Your task to perform on an android device: Go to sound settings Image 0: 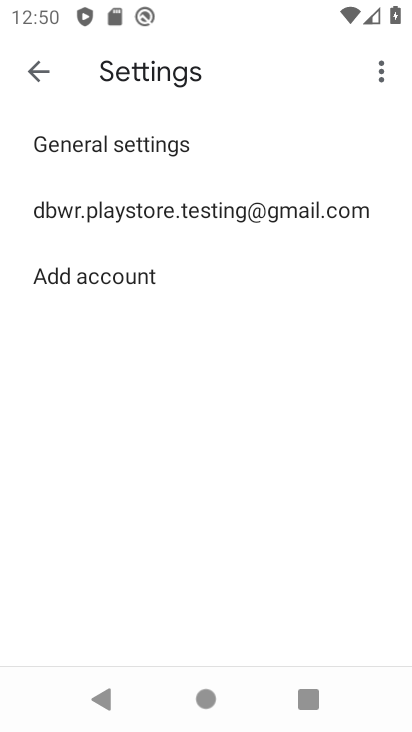
Step 0: press back button
Your task to perform on an android device: Go to sound settings Image 1: 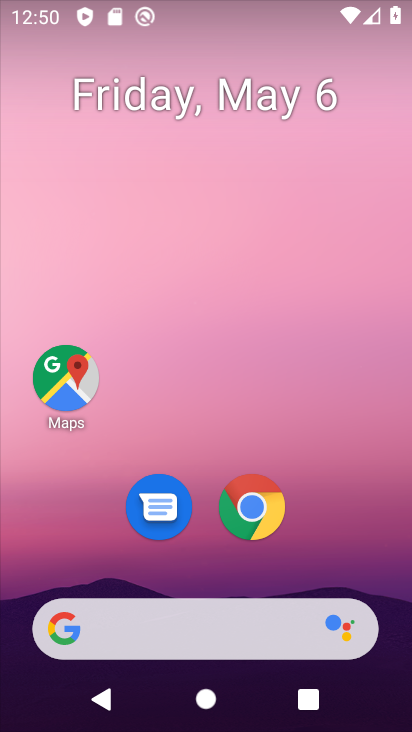
Step 1: drag from (141, 572) to (259, 6)
Your task to perform on an android device: Go to sound settings Image 2: 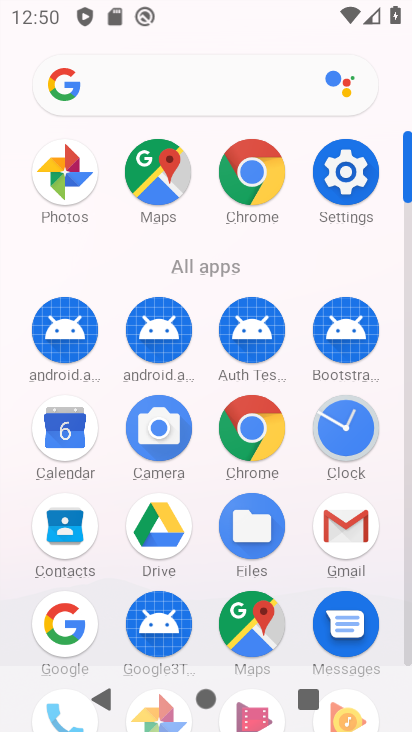
Step 2: click (340, 168)
Your task to perform on an android device: Go to sound settings Image 3: 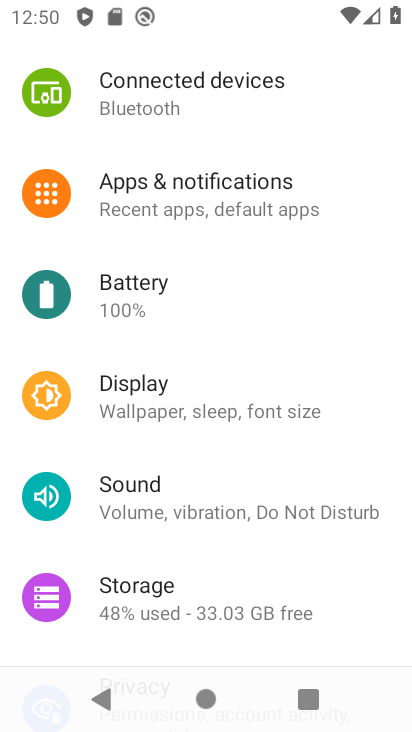
Step 3: drag from (124, 620) to (207, 358)
Your task to perform on an android device: Go to sound settings Image 4: 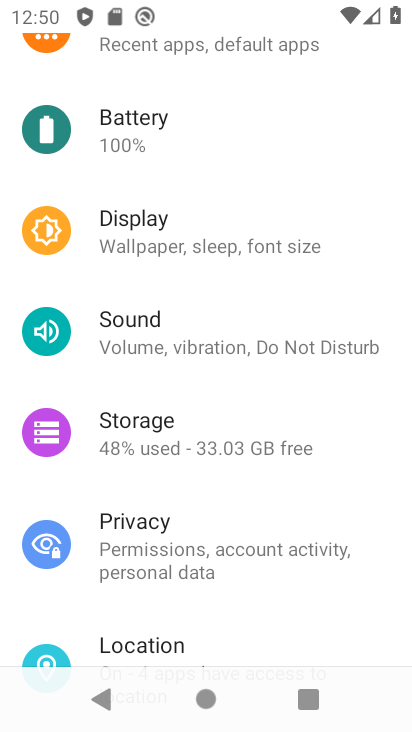
Step 4: click (145, 331)
Your task to perform on an android device: Go to sound settings Image 5: 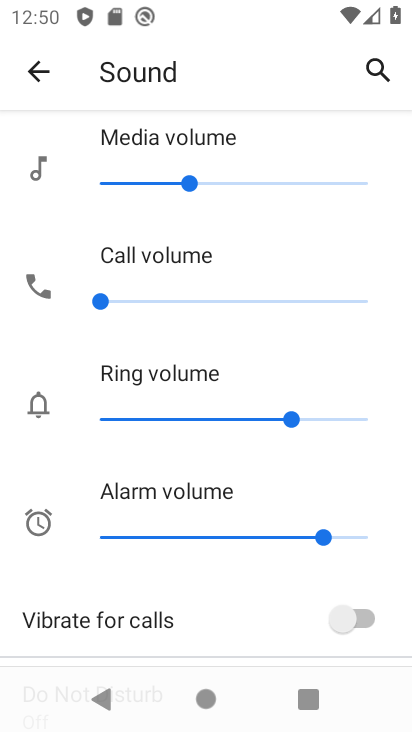
Step 5: task complete